Your task to perform on an android device: turn vacation reply on in the gmail app Image 0: 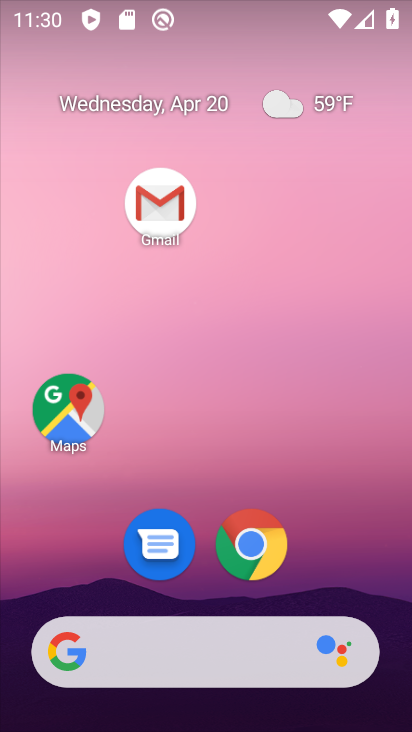
Step 0: click (163, 200)
Your task to perform on an android device: turn vacation reply on in the gmail app Image 1: 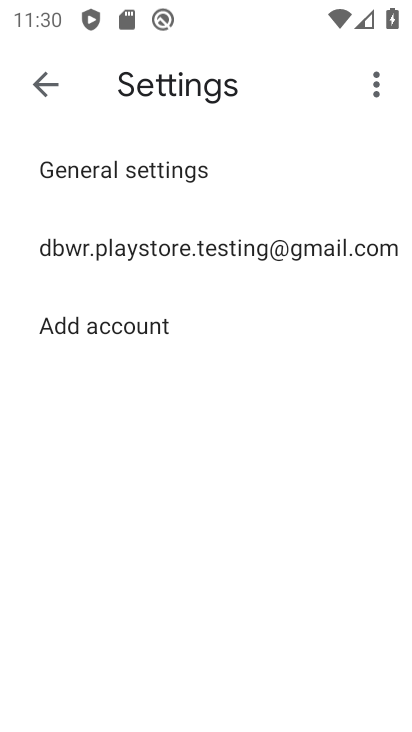
Step 1: click (191, 251)
Your task to perform on an android device: turn vacation reply on in the gmail app Image 2: 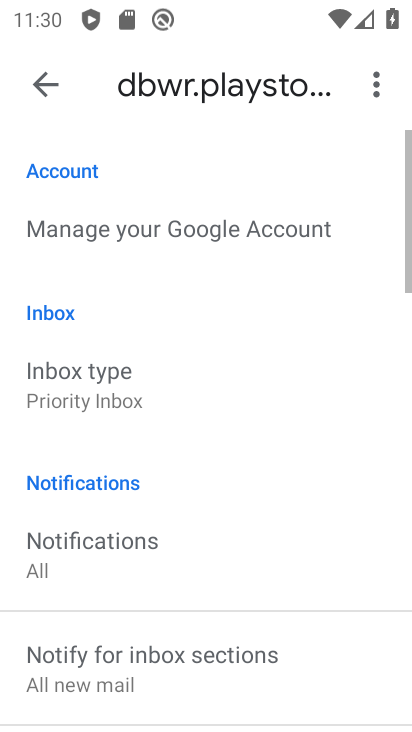
Step 2: drag from (238, 520) to (262, 160)
Your task to perform on an android device: turn vacation reply on in the gmail app Image 3: 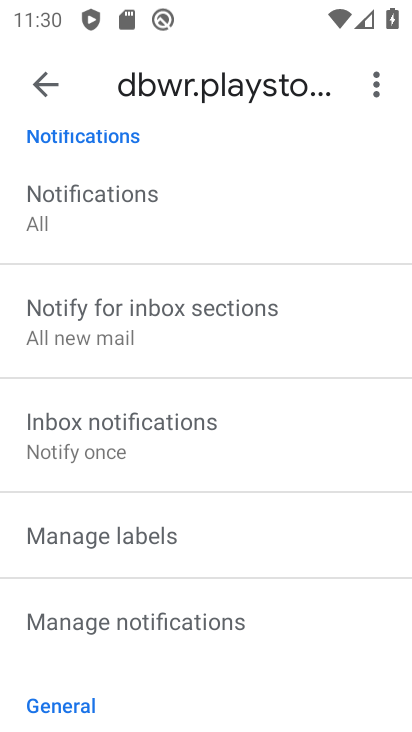
Step 3: drag from (227, 555) to (228, 300)
Your task to perform on an android device: turn vacation reply on in the gmail app Image 4: 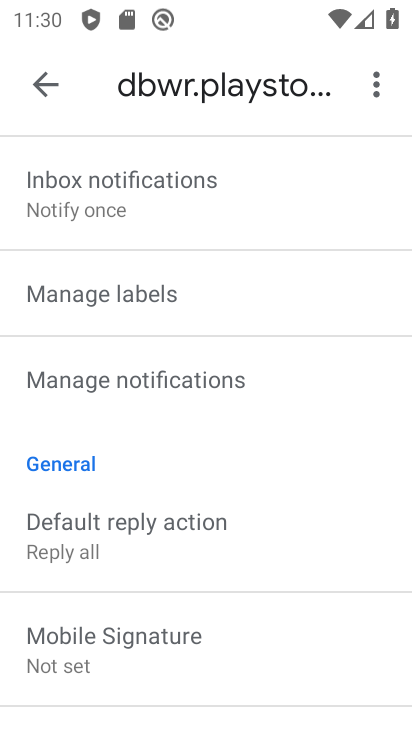
Step 4: drag from (305, 522) to (318, 138)
Your task to perform on an android device: turn vacation reply on in the gmail app Image 5: 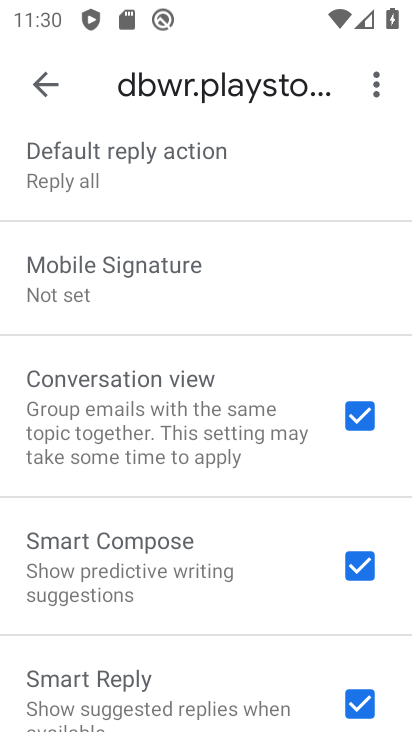
Step 5: drag from (270, 592) to (298, 145)
Your task to perform on an android device: turn vacation reply on in the gmail app Image 6: 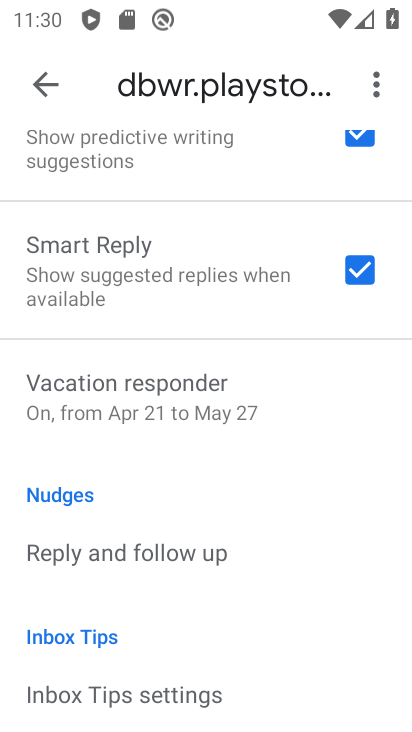
Step 6: click (189, 394)
Your task to perform on an android device: turn vacation reply on in the gmail app Image 7: 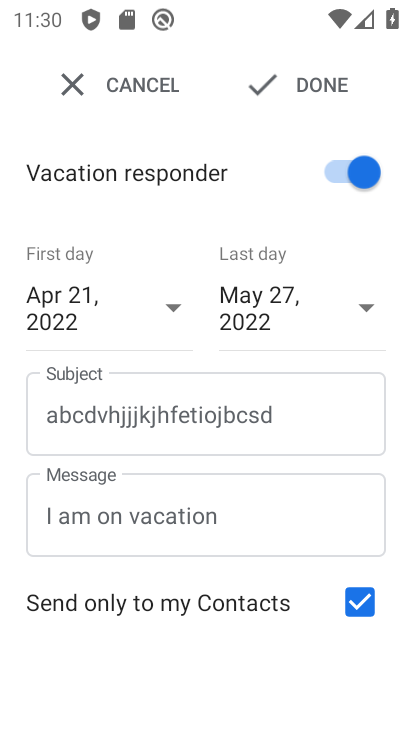
Step 7: click (316, 78)
Your task to perform on an android device: turn vacation reply on in the gmail app Image 8: 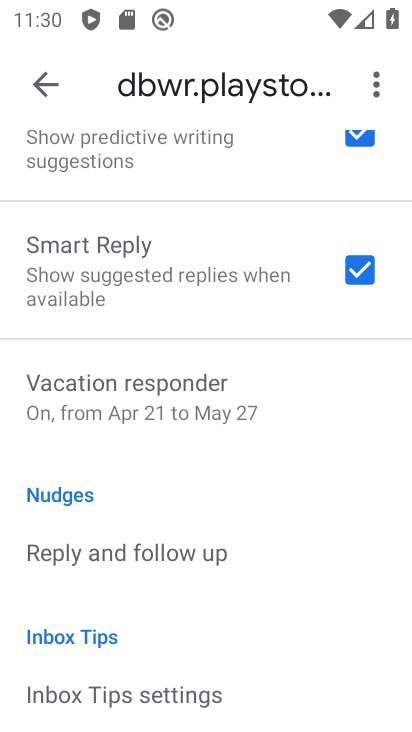
Step 8: task complete